Your task to perform on an android device: open app "Venmo" (install if not already installed) Image 0: 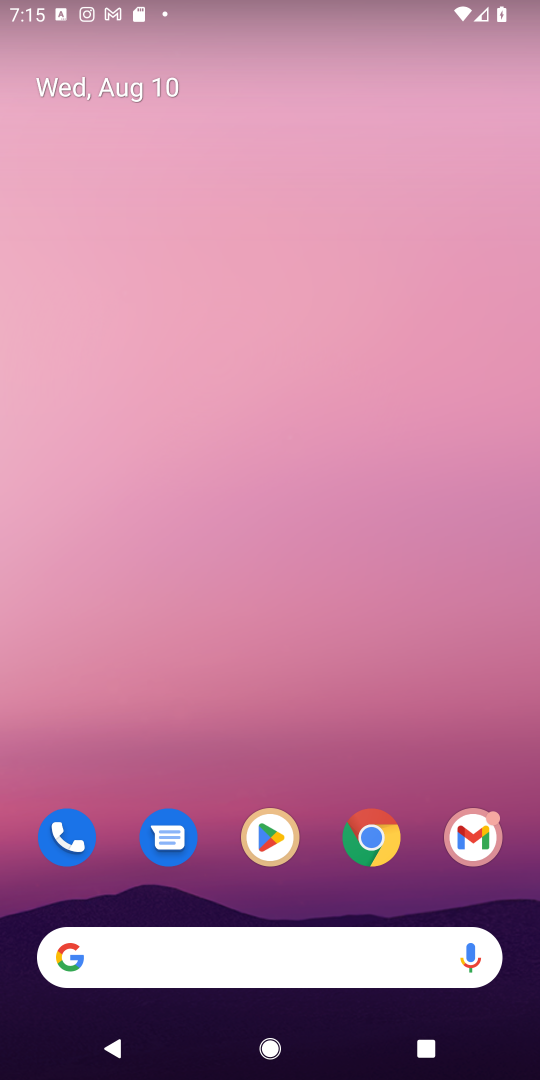
Step 0: click (260, 837)
Your task to perform on an android device: open app "Venmo" (install if not already installed) Image 1: 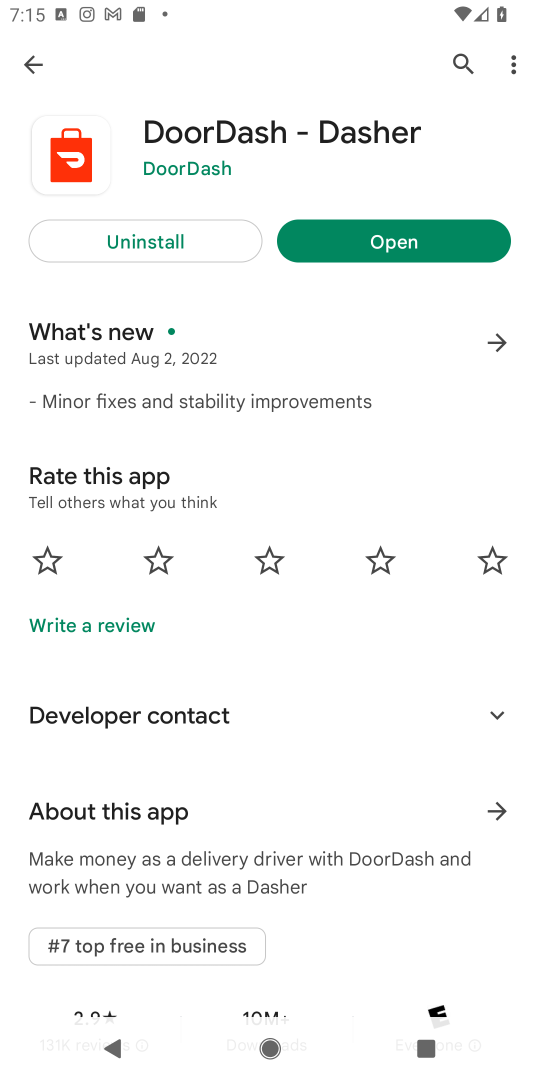
Step 1: click (459, 52)
Your task to perform on an android device: open app "Venmo" (install if not already installed) Image 2: 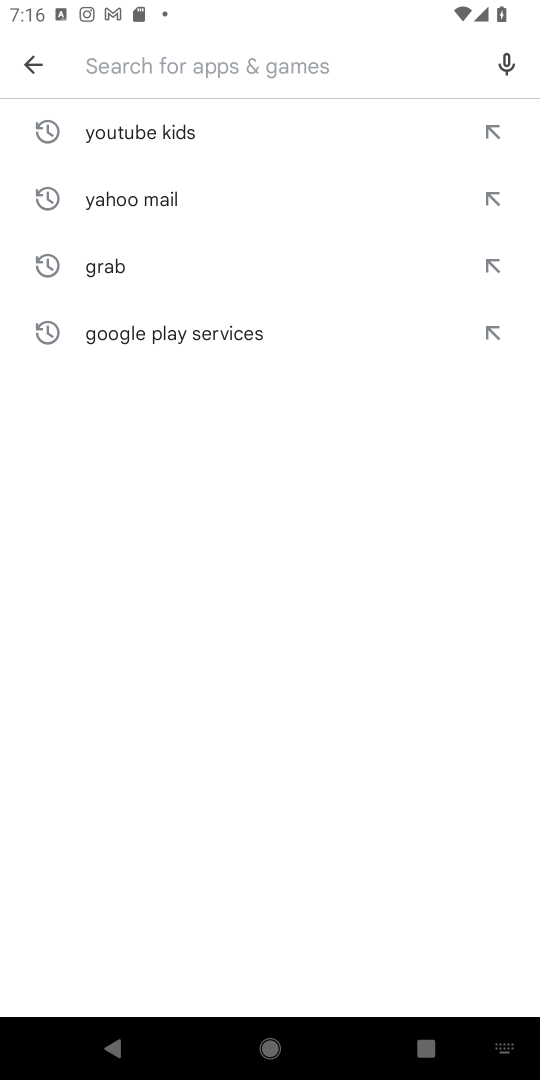
Step 2: type "Venmo"
Your task to perform on an android device: open app "Venmo" (install if not already installed) Image 3: 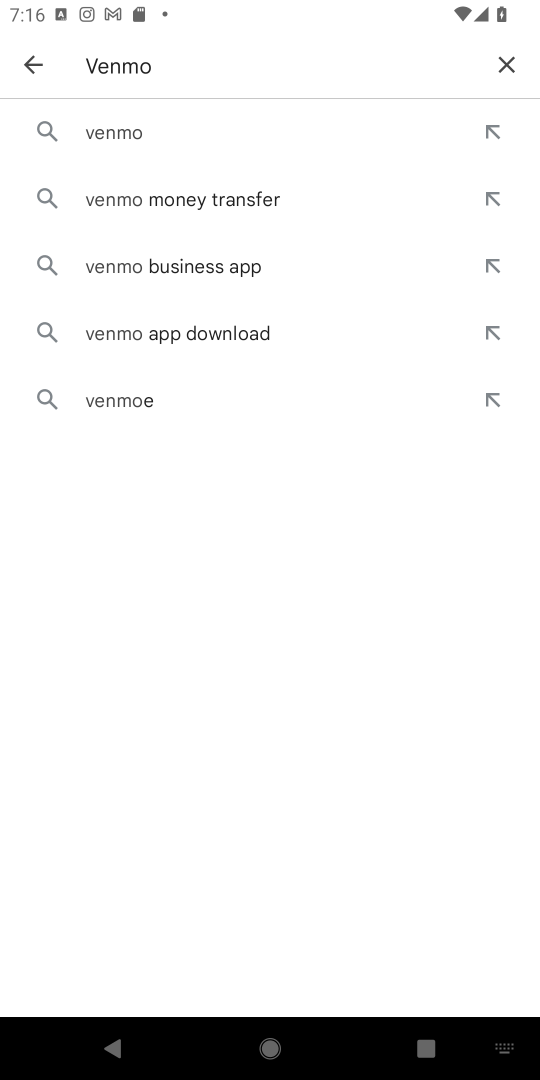
Step 3: click (133, 130)
Your task to perform on an android device: open app "Venmo" (install if not already installed) Image 4: 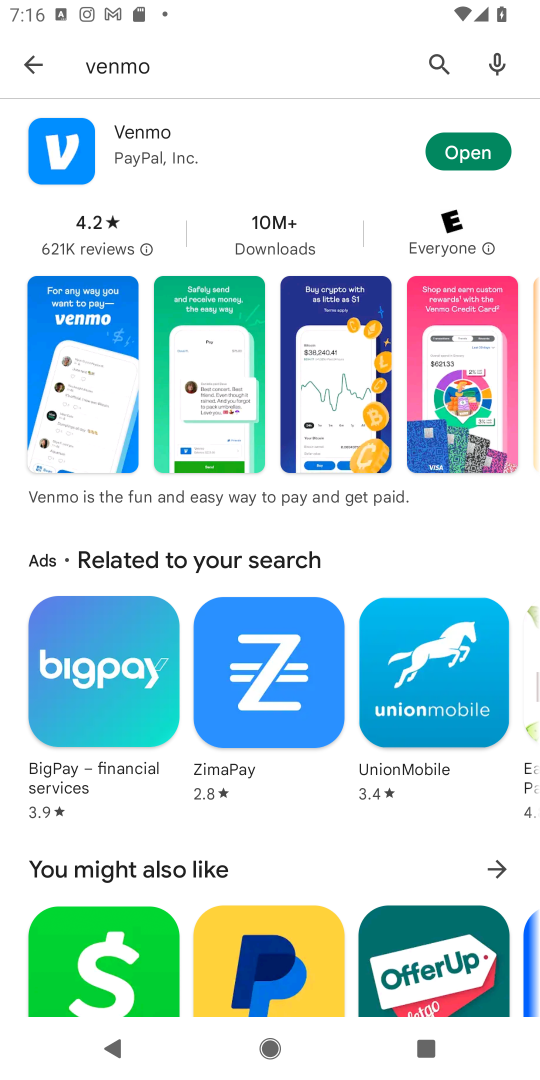
Step 4: click (465, 149)
Your task to perform on an android device: open app "Venmo" (install if not already installed) Image 5: 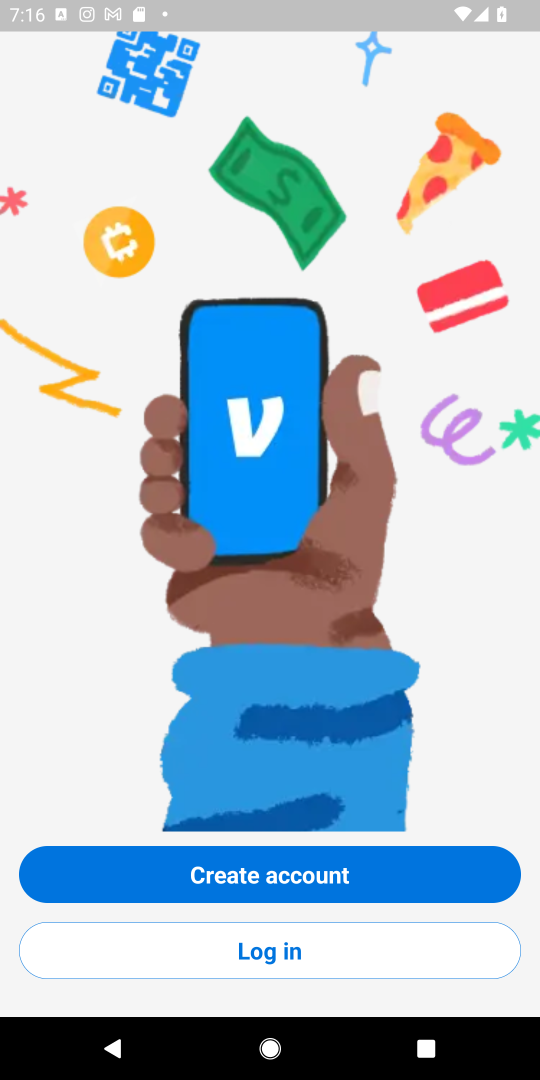
Step 5: task complete